Your task to perform on an android device: check data usage Image 0: 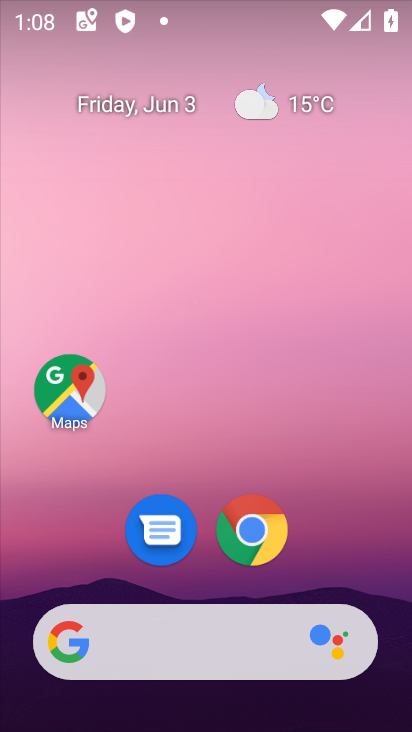
Step 0: drag from (377, 581) to (348, 221)
Your task to perform on an android device: check data usage Image 1: 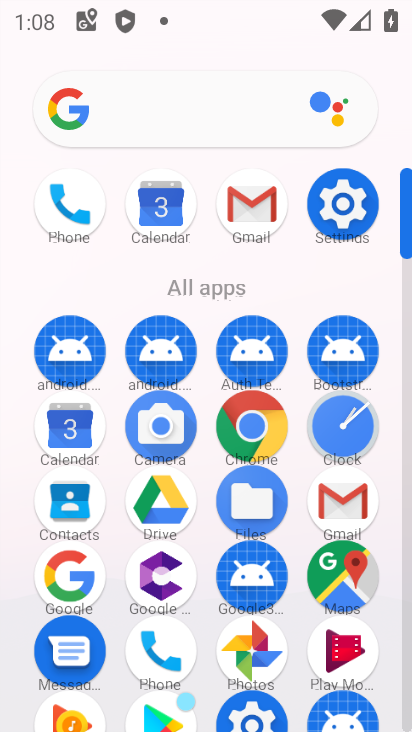
Step 1: click (346, 213)
Your task to perform on an android device: check data usage Image 2: 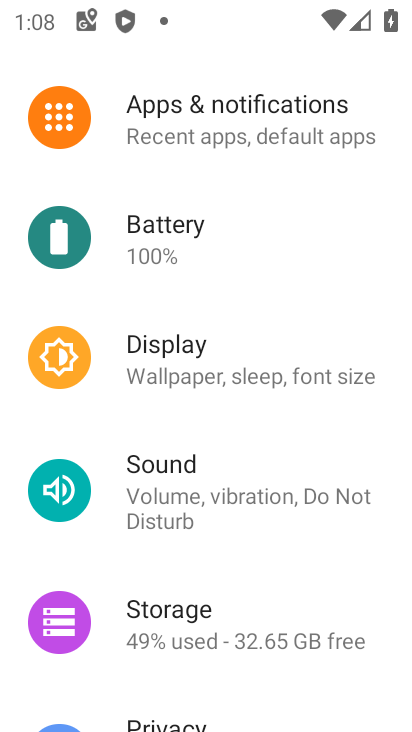
Step 2: drag from (387, 87) to (364, 619)
Your task to perform on an android device: check data usage Image 3: 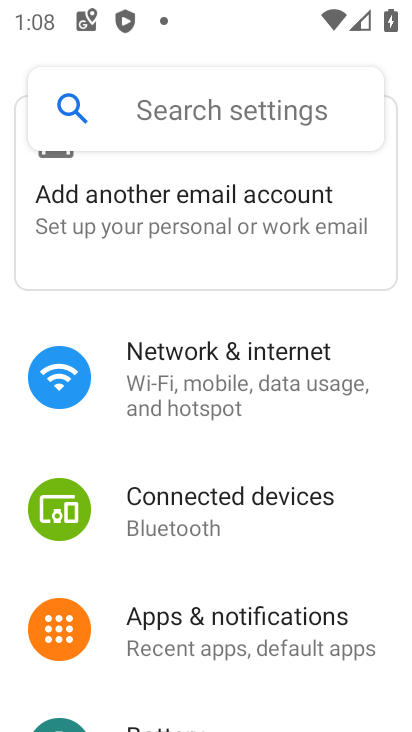
Step 3: click (217, 362)
Your task to perform on an android device: check data usage Image 4: 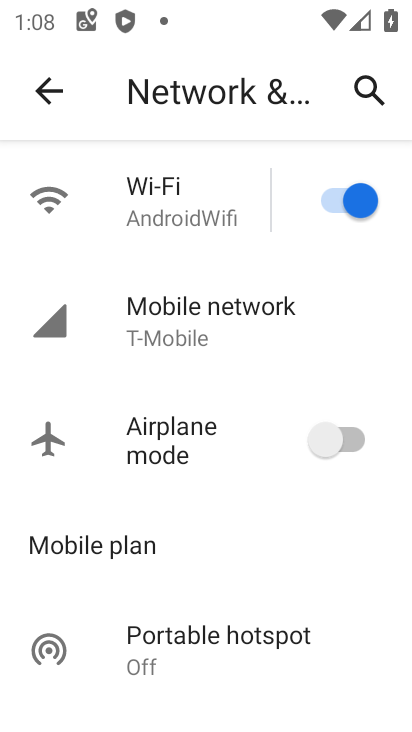
Step 4: click (196, 311)
Your task to perform on an android device: check data usage Image 5: 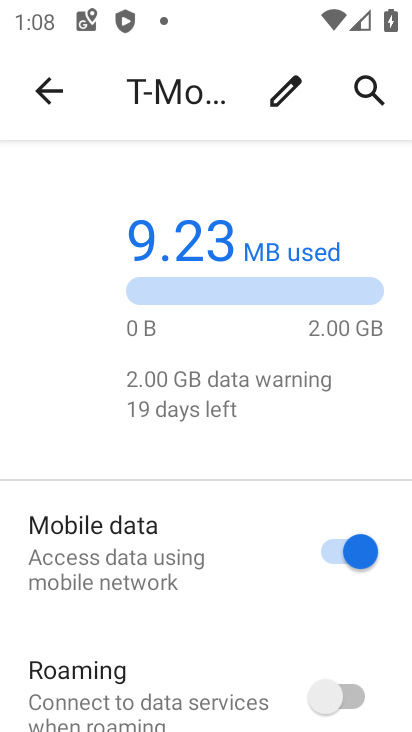
Step 5: task complete